Your task to perform on an android device: empty trash in google photos Image 0: 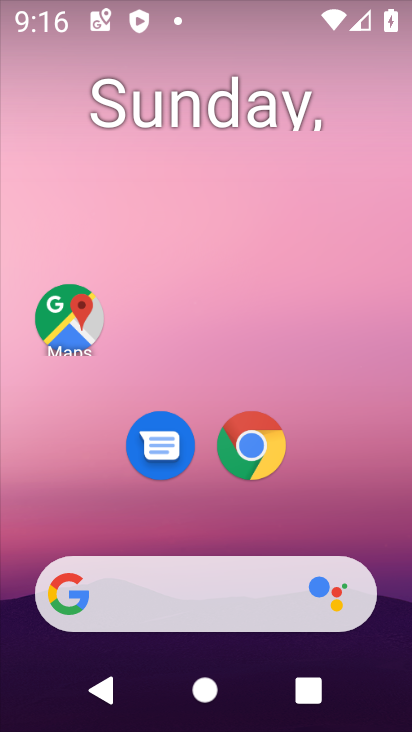
Step 0: drag from (399, 602) to (300, 134)
Your task to perform on an android device: empty trash in google photos Image 1: 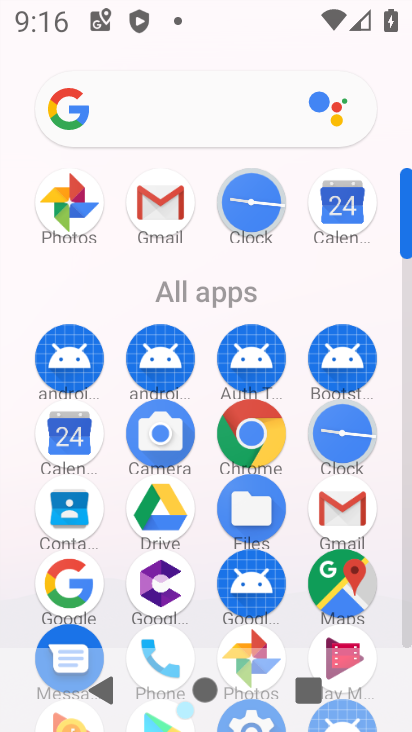
Step 1: click (407, 622)
Your task to perform on an android device: empty trash in google photos Image 2: 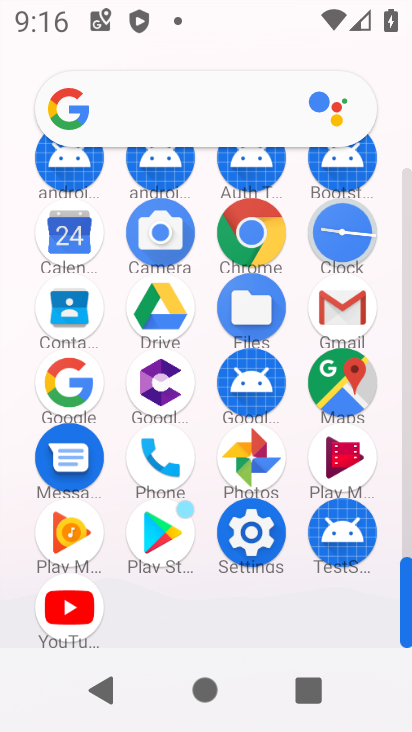
Step 2: click (255, 459)
Your task to perform on an android device: empty trash in google photos Image 3: 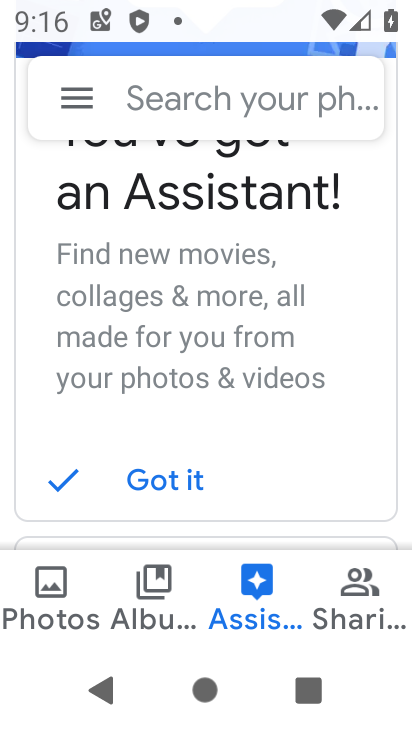
Step 3: click (69, 95)
Your task to perform on an android device: empty trash in google photos Image 4: 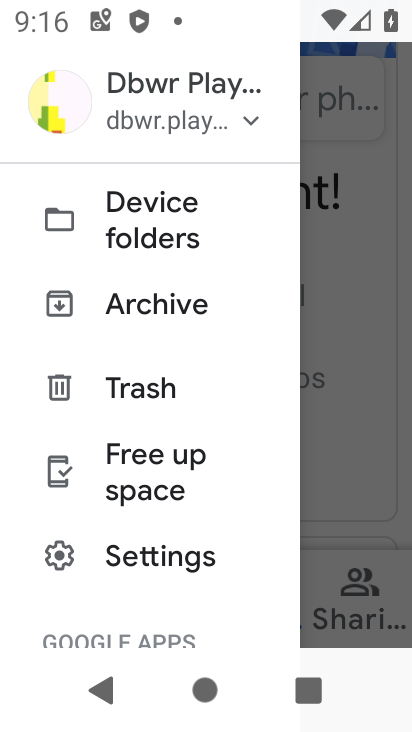
Step 4: click (134, 391)
Your task to perform on an android device: empty trash in google photos Image 5: 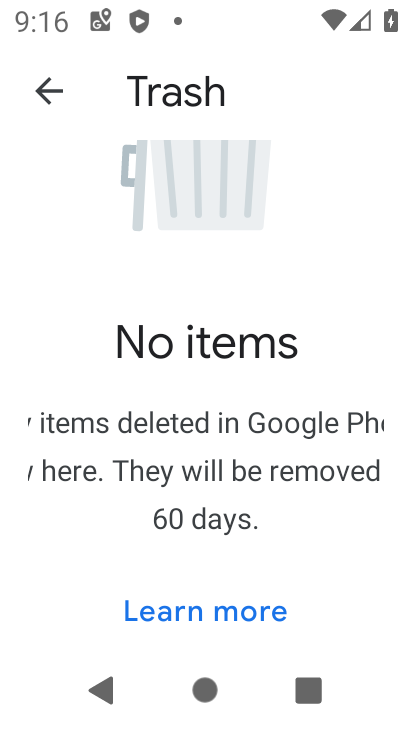
Step 5: task complete